Your task to perform on an android device: open sync settings in chrome Image 0: 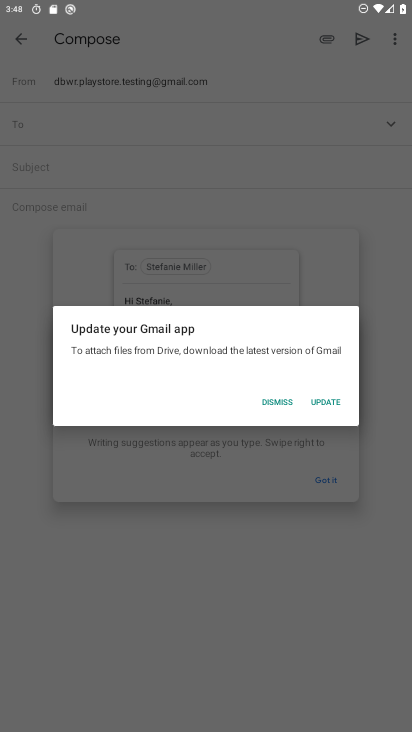
Step 0: press home button
Your task to perform on an android device: open sync settings in chrome Image 1: 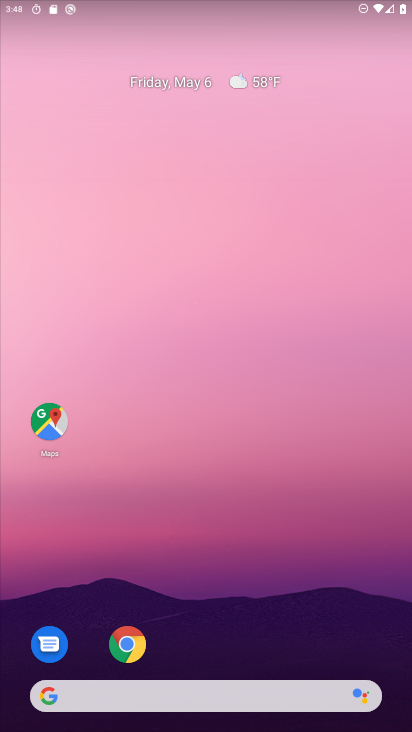
Step 1: click (127, 645)
Your task to perform on an android device: open sync settings in chrome Image 2: 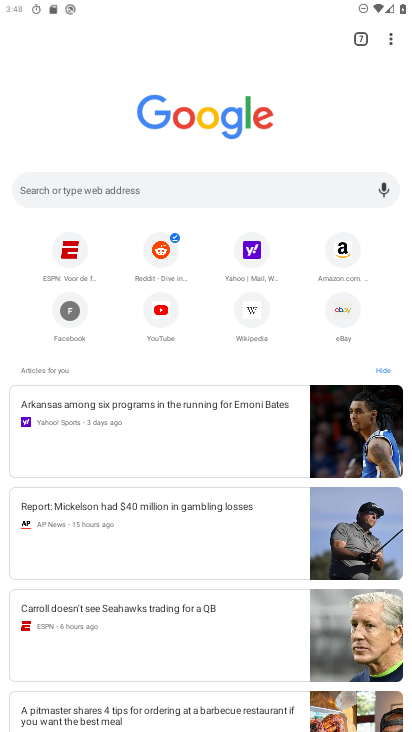
Step 2: click (392, 41)
Your task to perform on an android device: open sync settings in chrome Image 3: 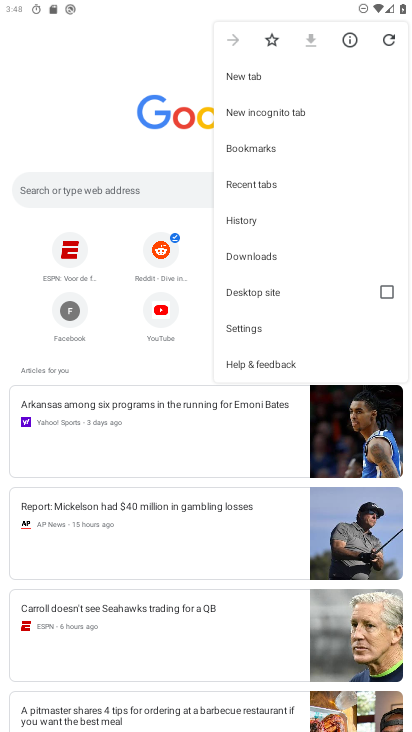
Step 3: click (255, 328)
Your task to perform on an android device: open sync settings in chrome Image 4: 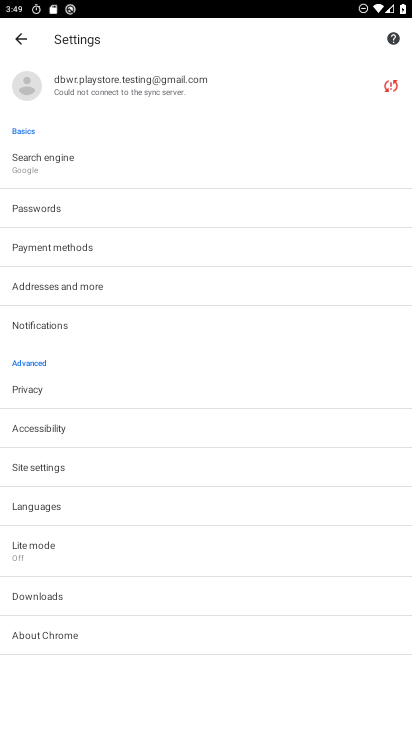
Step 4: click (45, 462)
Your task to perform on an android device: open sync settings in chrome Image 5: 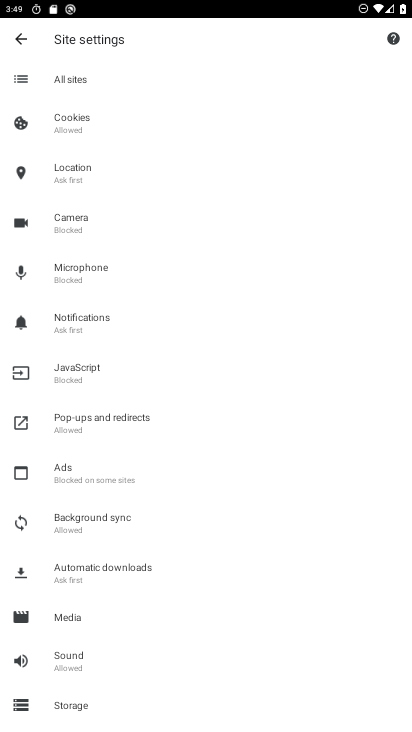
Step 5: click (84, 518)
Your task to perform on an android device: open sync settings in chrome Image 6: 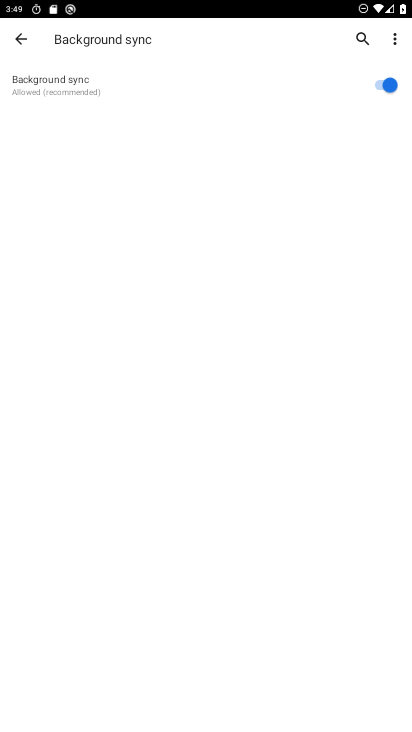
Step 6: task complete